Your task to perform on an android device: Open the calendar and show me this week's events? Image 0: 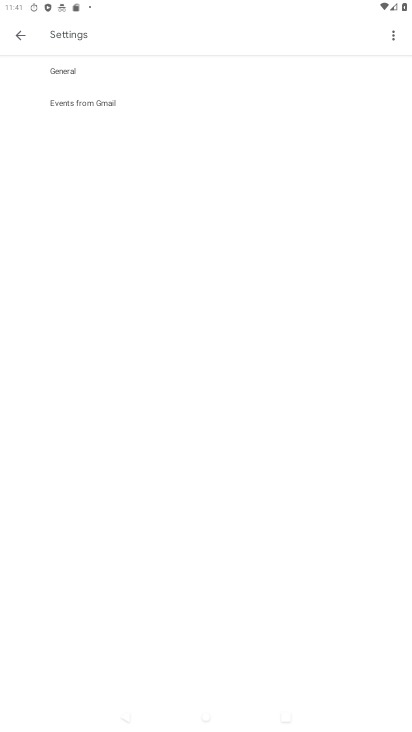
Step 0: press home button
Your task to perform on an android device: Open the calendar and show me this week's events? Image 1: 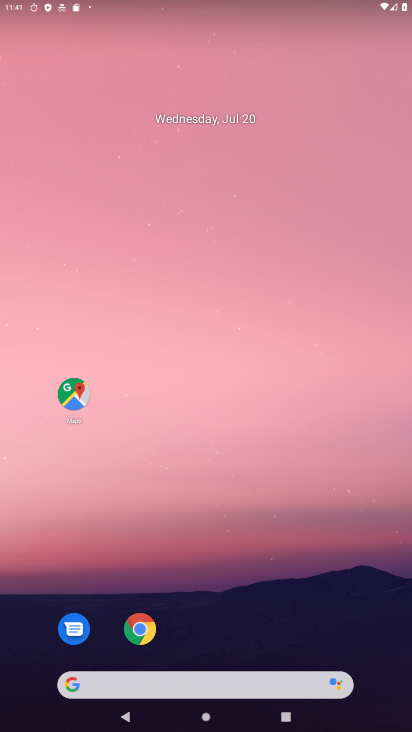
Step 1: drag from (257, 681) to (286, 118)
Your task to perform on an android device: Open the calendar and show me this week's events? Image 2: 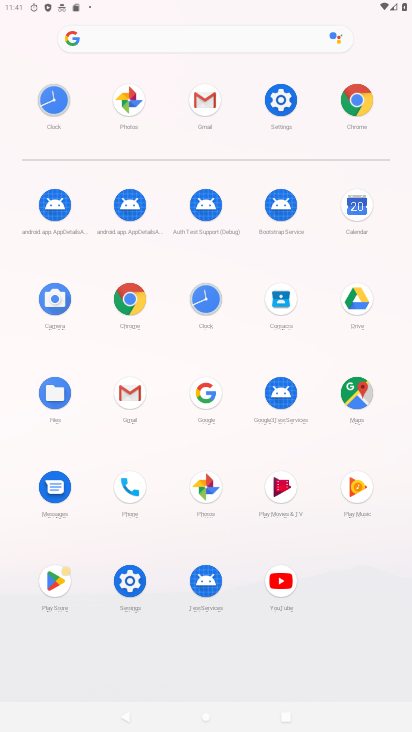
Step 2: click (361, 196)
Your task to perform on an android device: Open the calendar and show me this week's events? Image 3: 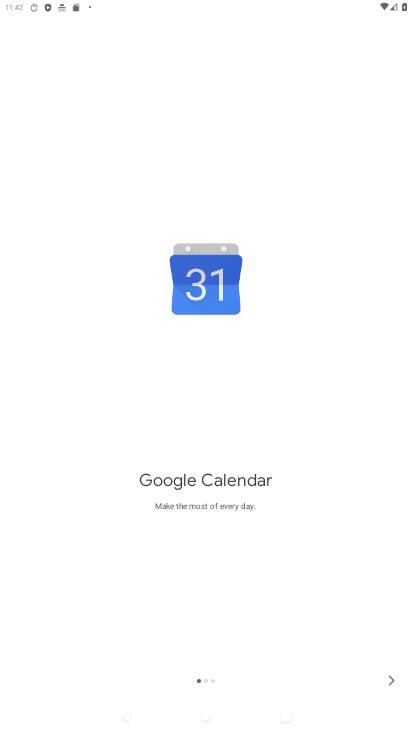
Step 3: click (396, 674)
Your task to perform on an android device: Open the calendar and show me this week's events? Image 4: 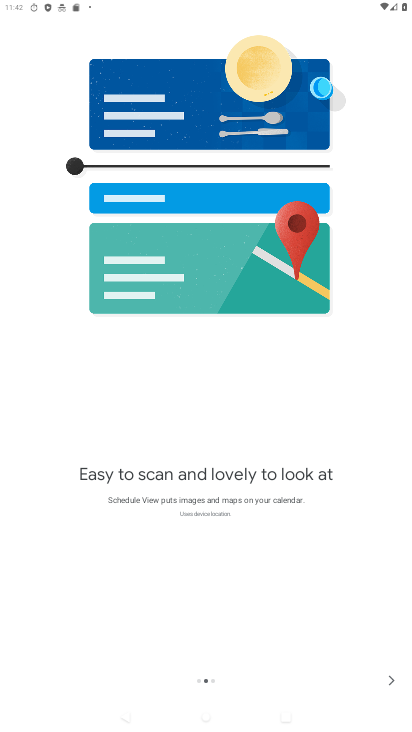
Step 4: click (396, 674)
Your task to perform on an android device: Open the calendar and show me this week's events? Image 5: 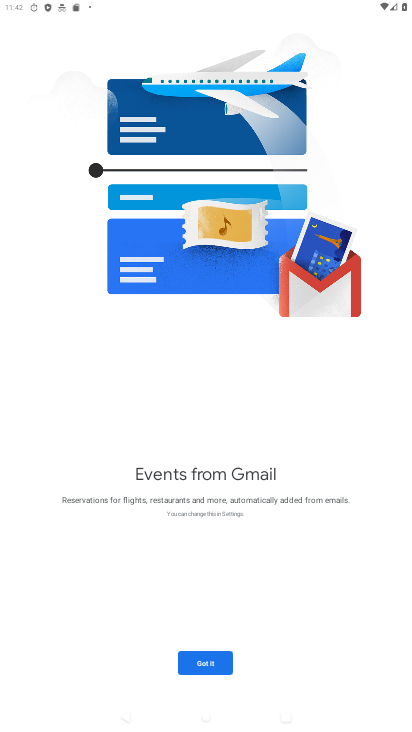
Step 5: click (228, 665)
Your task to perform on an android device: Open the calendar and show me this week's events? Image 6: 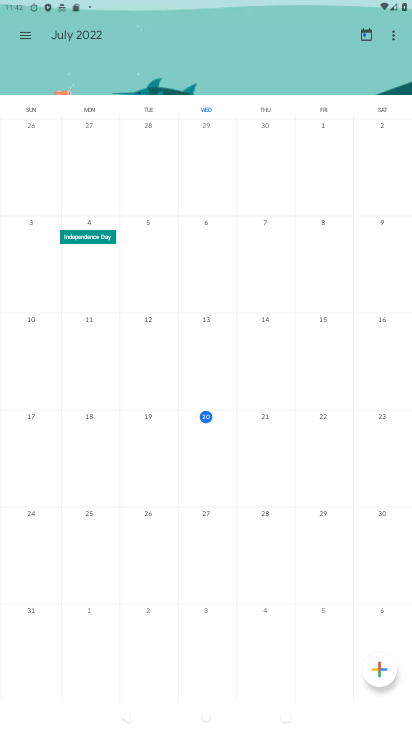
Step 6: click (29, 35)
Your task to perform on an android device: Open the calendar and show me this week's events? Image 7: 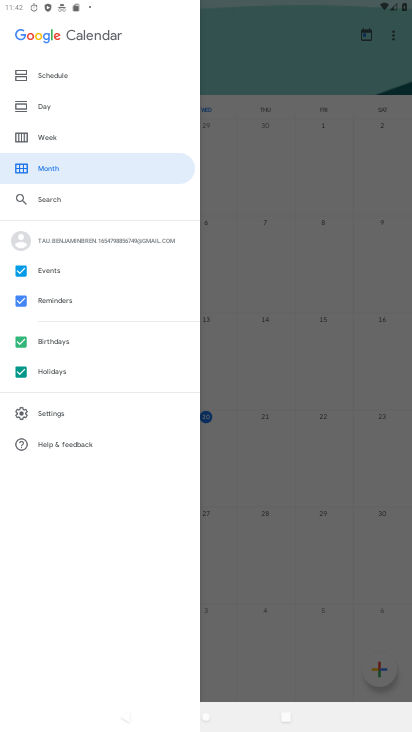
Step 7: click (310, 65)
Your task to perform on an android device: Open the calendar and show me this week's events? Image 8: 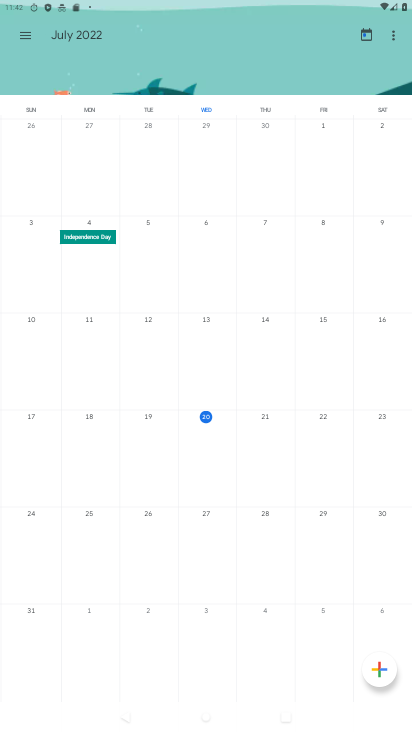
Step 8: click (211, 509)
Your task to perform on an android device: Open the calendar and show me this week's events? Image 9: 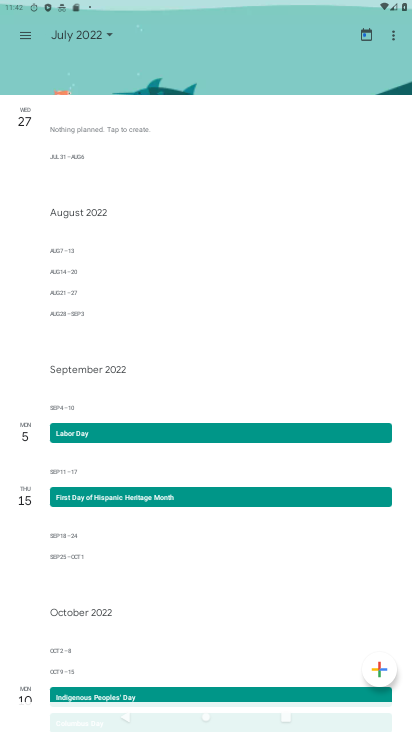
Step 9: click (32, 29)
Your task to perform on an android device: Open the calendar and show me this week's events? Image 10: 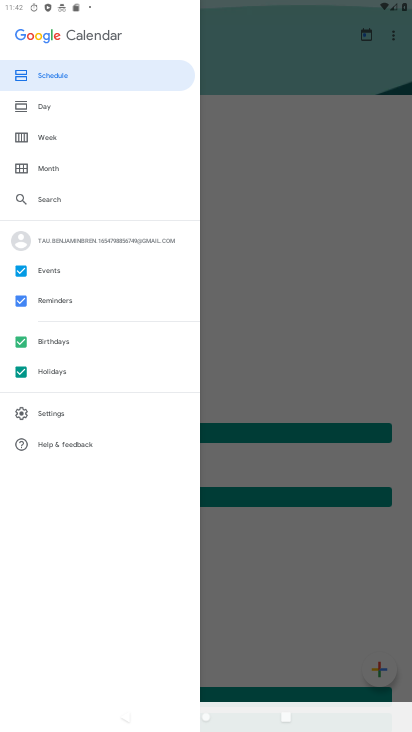
Step 10: click (62, 140)
Your task to perform on an android device: Open the calendar and show me this week's events? Image 11: 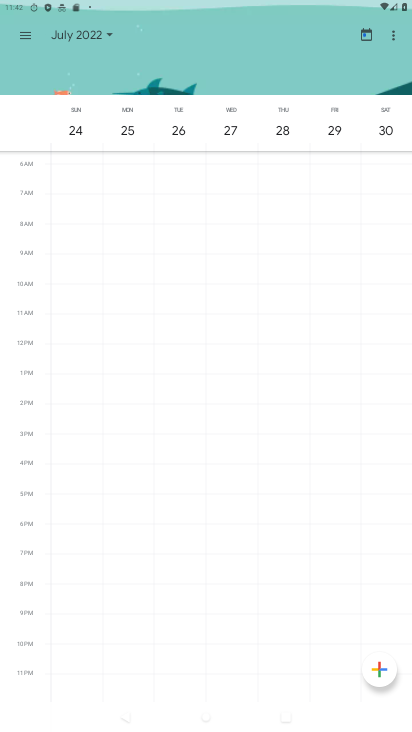
Step 11: task complete